Your task to perform on an android device: Open battery settings Image 0: 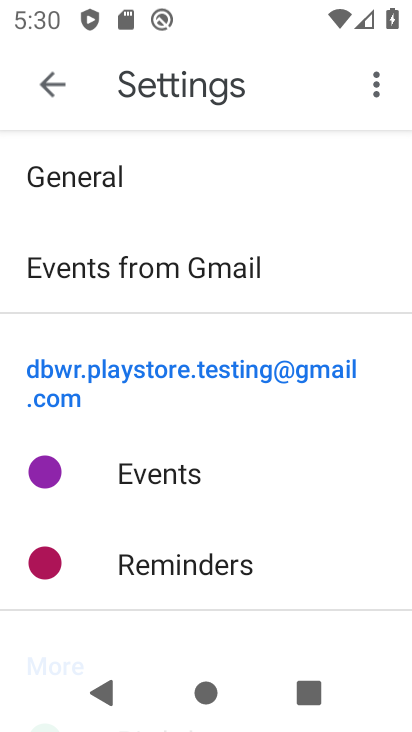
Step 0: press back button
Your task to perform on an android device: Open battery settings Image 1: 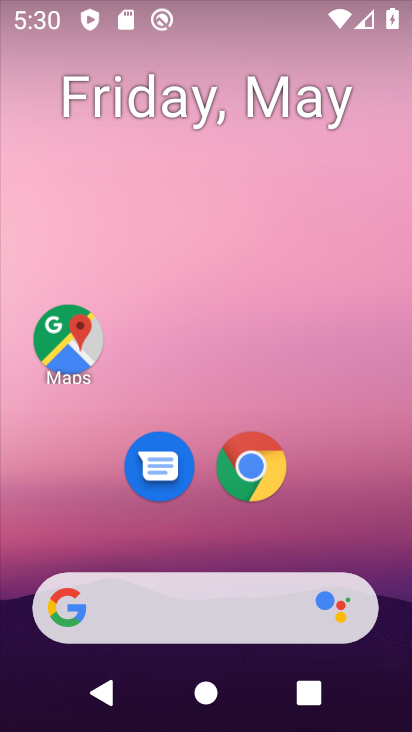
Step 1: drag from (387, 588) to (261, 43)
Your task to perform on an android device: Open battery settings Image 2: 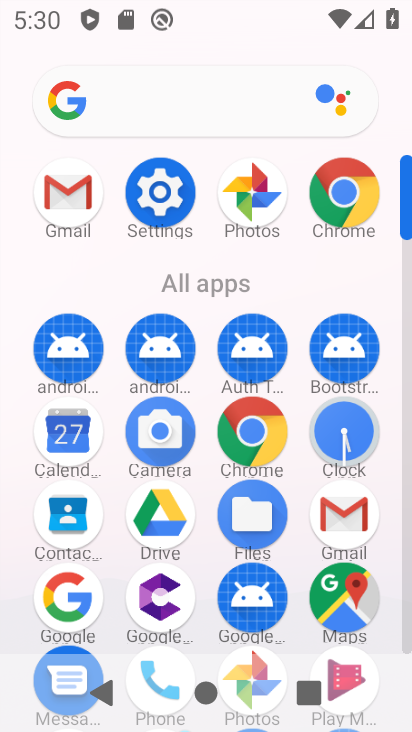
Step 2: drag from (9, 565) to (15, 260)
Your task to perform on an android device: Open battery settings Image 3: 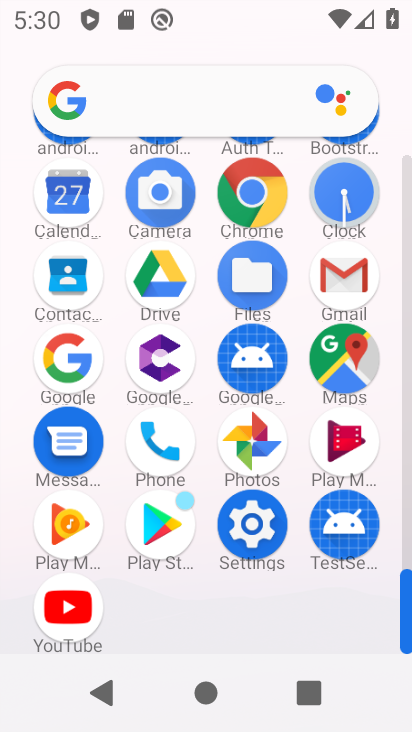
Step 3: click (248, 523)
Your task to perform on an android device: Open battery settings Image 4: 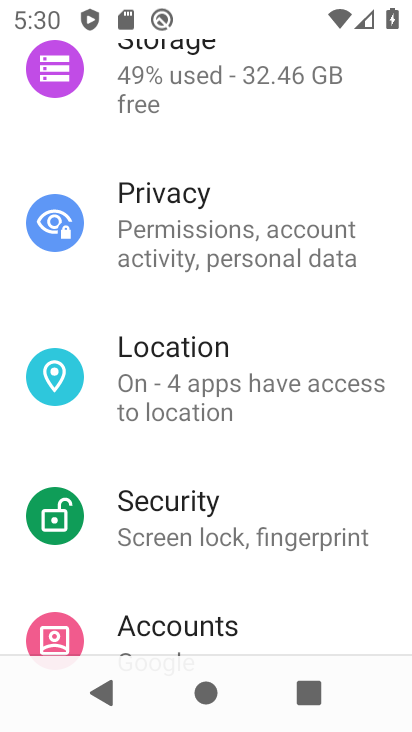
Step 4: drag from (240, 176) to (274, 632)
Your task to perform on an android device: Open battery settings Image 5: 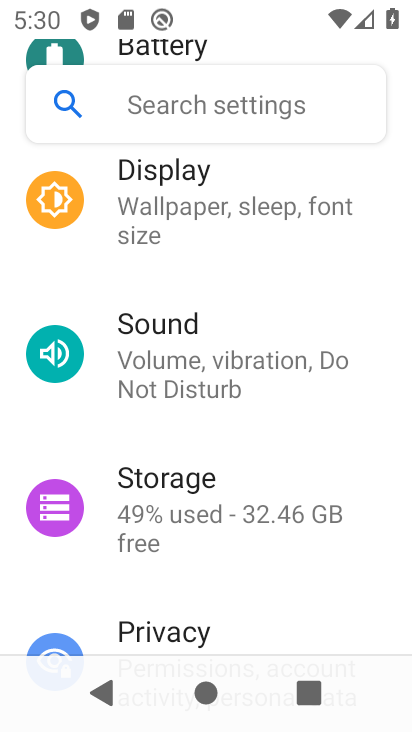
Step 5: drag from (248, 256) to (253, 637)
Your task to perform on an android device: Open battery settings Image 6: 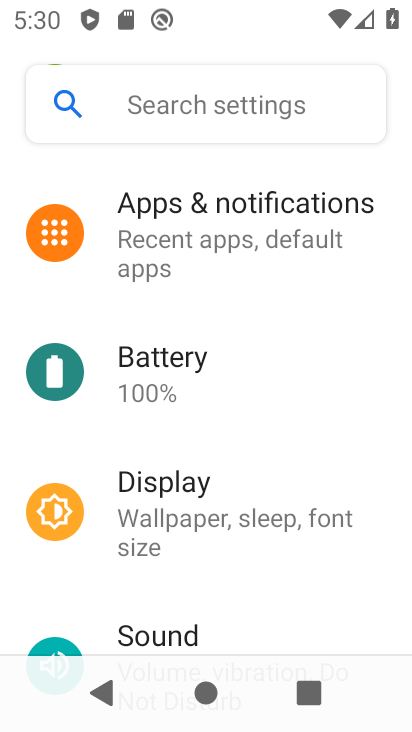
Step 6: click (188, 378)
Your task to perform on an android device: Open battery settings Image 7: 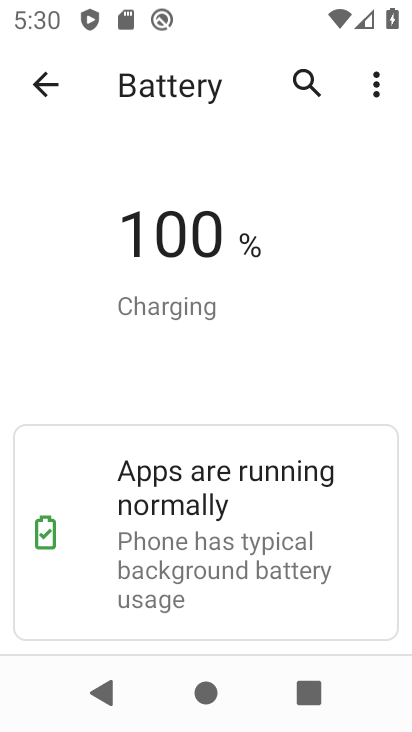
Step 7: task complete